Your task to perform on an android device: Open the stopwatch Image 0: 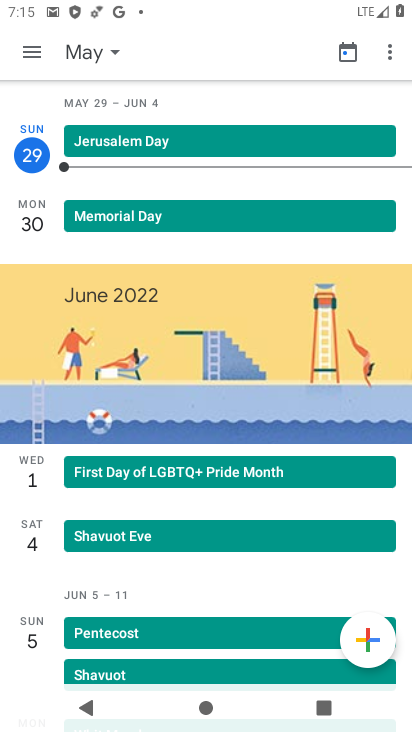
Step 0: press home button
Your task to perform on an android device: Open the stopwatch Image 1: 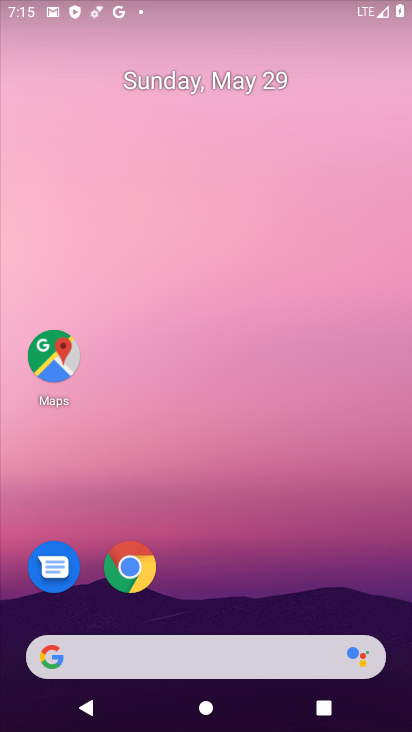
Step 1: drag from (287, 304) to (266, 229)
Your task to perform on an android device: Open the stopwatch Image 2: 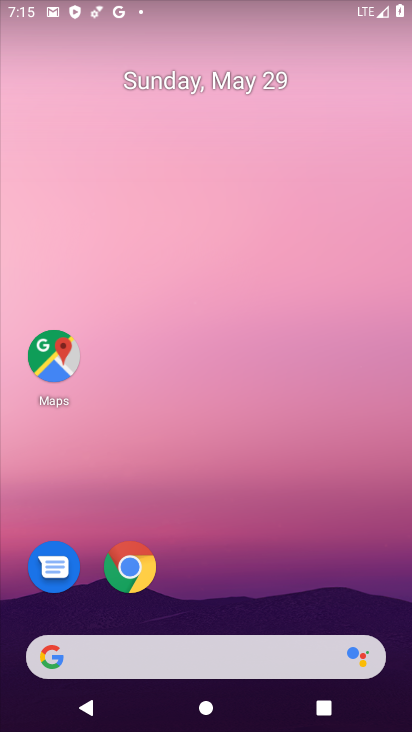
Step 2: drag from (218, 499) to (214, 136)
Your task to perform on an android device: Open the stopwatch Image 3: 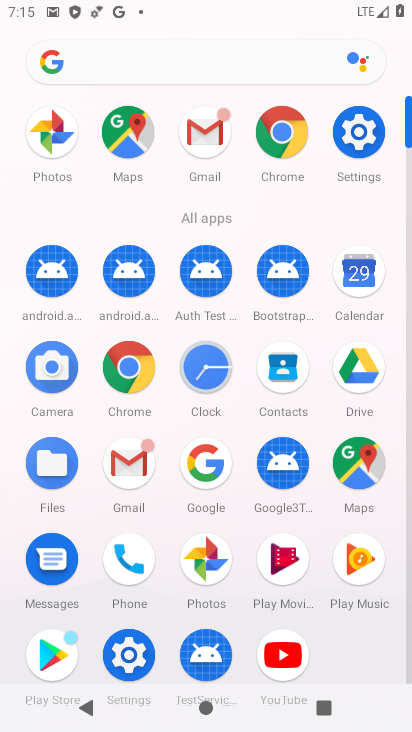
Step 3: click (221, 374)
Your task to perform on an android device: Open the stopwatch Image 4: 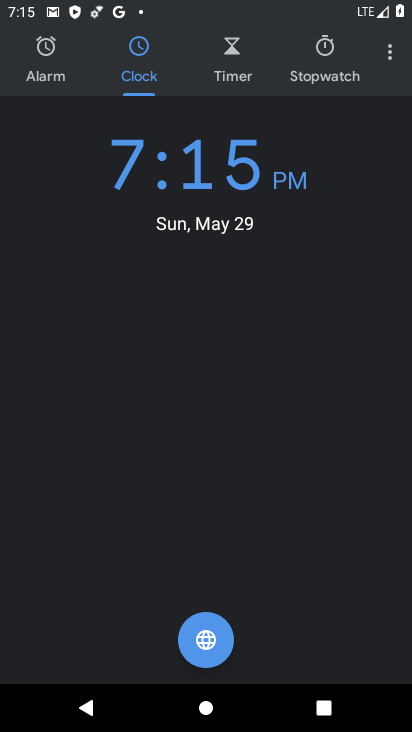
Step 4: click (329, 64)
Your task to perform on an android device: Open the stopwatch Image 5: 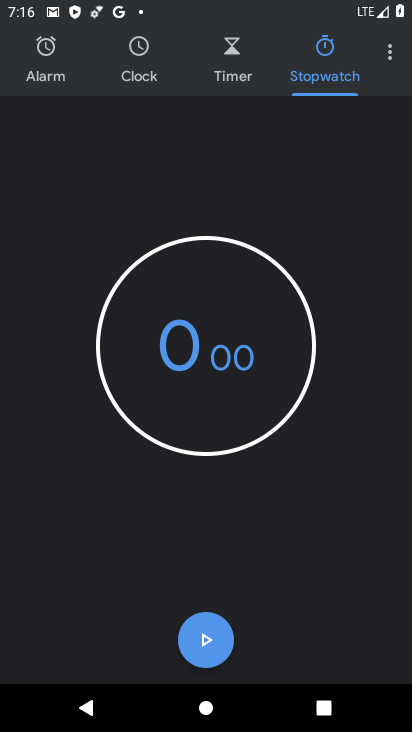
Step 5: task complete